Your task to perform on an android device: Go to Google Image 0: 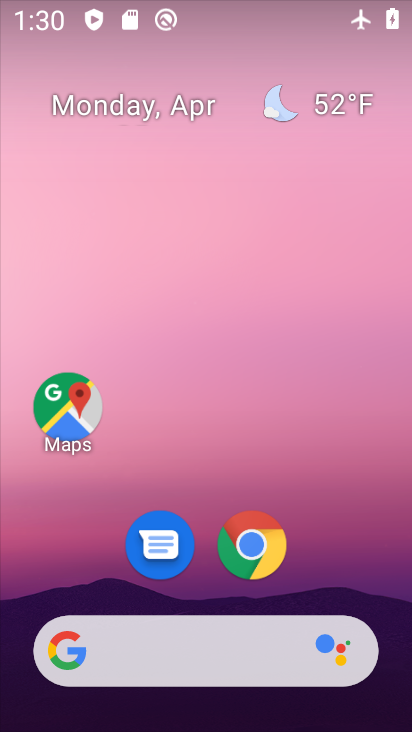
Step 0: drag from (220, 610) to (220, 181)
Your task to perform on an android device: Go to Google Image 1: 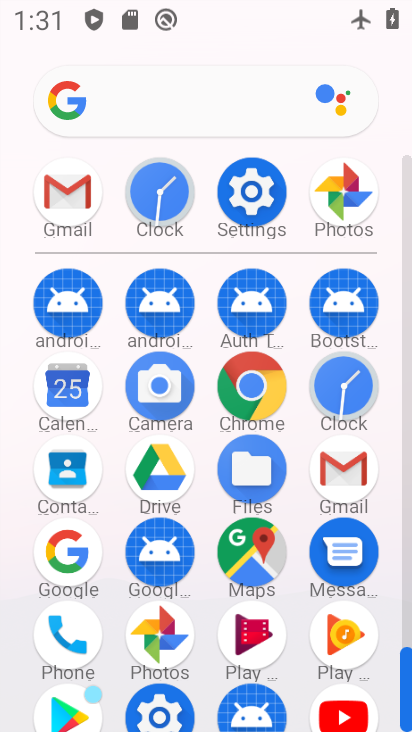
Step 1: click (69, 543)
Your task to perform on an android device: Go to Google Image 2: 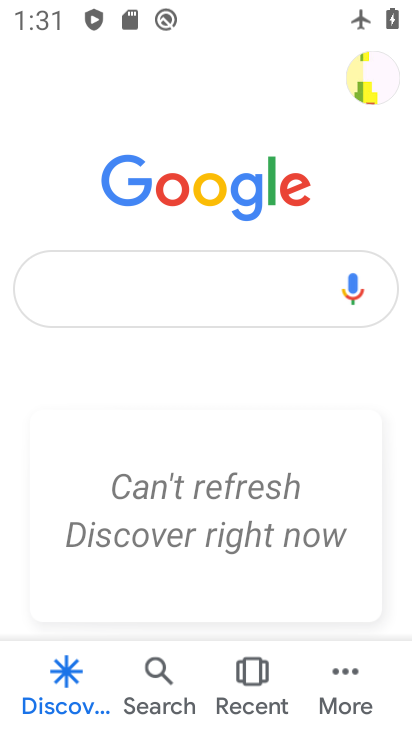
Step 2: task complete